Your task to perform on an android device: open app "Yahoo Mail" (install if not already installed) and go to login screen Image 0: 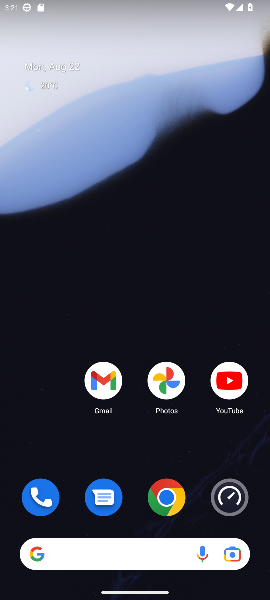
Step 0: press home button
Your task to perform on an android device: open app "Yahoo Mail" (install if not already installed) and go to login screen Image 1: 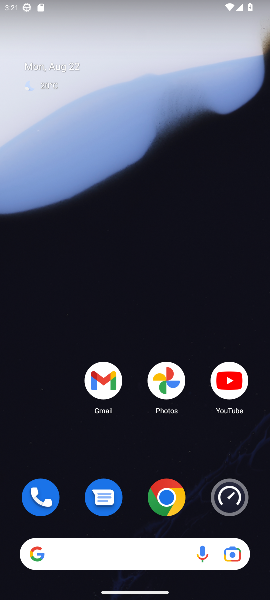
Step 1: drag from (43, 387) to (36, 160)
Your task to perform on an android device: open app "Yahoo Mail" (install if not already installed) and go to login screen Image 2: 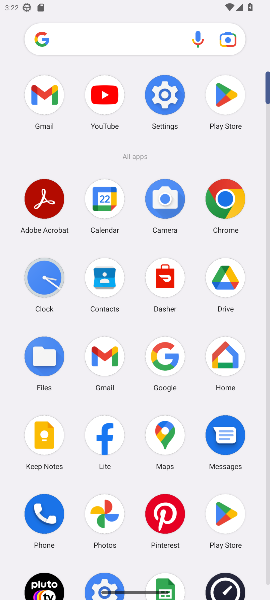
Step 2: click (228, 102)
Your task to perform on an android device: open app "Yahoo Mail" (install if not already installed) and go to login screen Image 3: 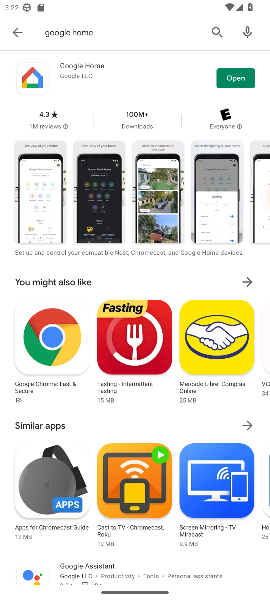
Step 3: press back button
Your task to perform on an android device: open app "Yahoo Mail" (install if not already installed) and go to login screen Image 4: 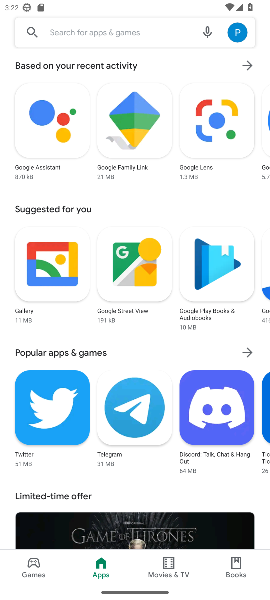
Step 4: click (158, 36)
Your task to perform on an android device: open app "Yahoo Mail" (install if not already installed) and go to login screen Image 5: 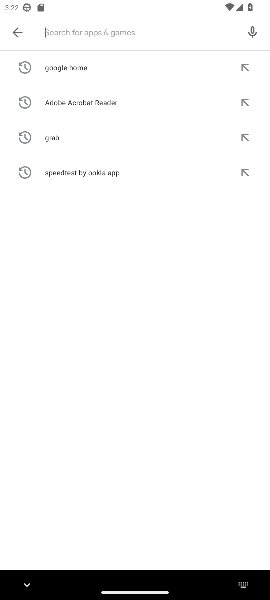
Step 5: type "yahoo mail"
Your task to perform on an android device: open app "Yahoo Mail" (install if not already installed) and go to login screen Image 6: 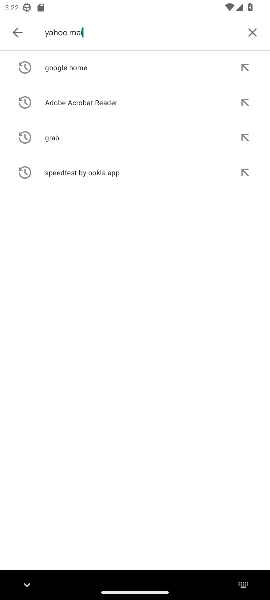
Step 6: press enter
Your task to perform on an android device: open app "Yahoo Mail" (install if not already installed) and go to login screen Image 7: 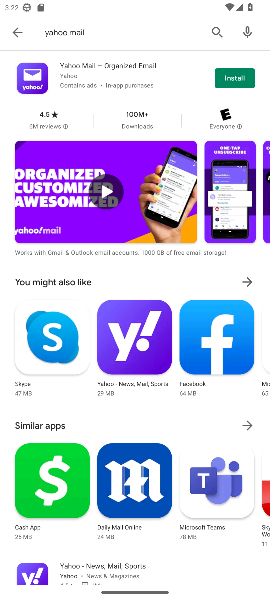
Step 7: click (241, 74)
Your task to perform on an android device: open app "Yahoo Mail" (install if not already installed) and go to login screen Image 8: 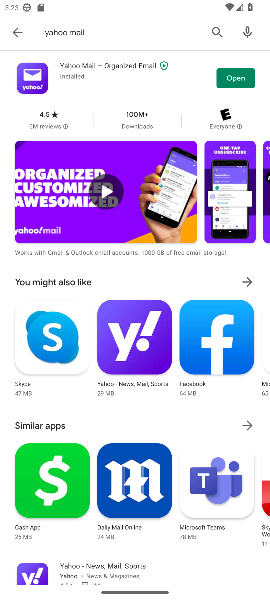
Step 8: click (232, 79)
Your task to perform on an android device: open app "Yahoo Mail" (install if not already installed) and go to login screen Image 9: 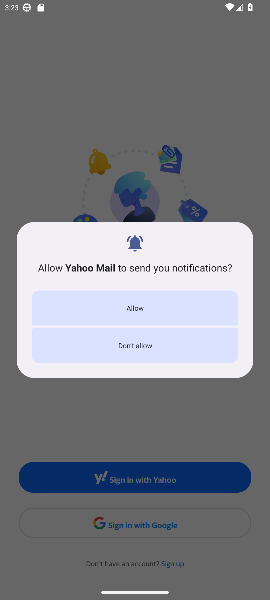
Step 9: task complete